Your task to perform on an android device: find photos in the google photos app Image 0: 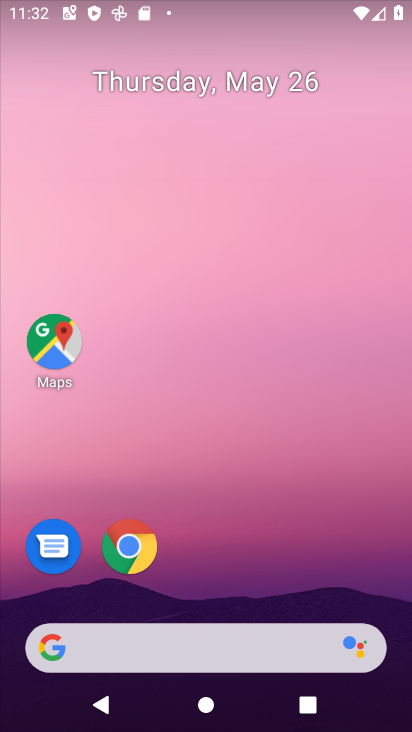
Step 0: drag from (226, 550) to (280, 141)
Your task to perform on an android device: find photos in the google photos app Image 1: 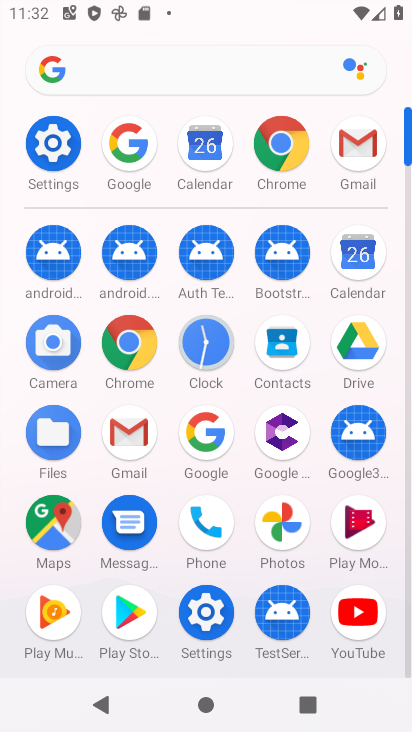
Step 1: click (286, 522)
Your task to perform on an android device: find photos in the google photos app Image 2: 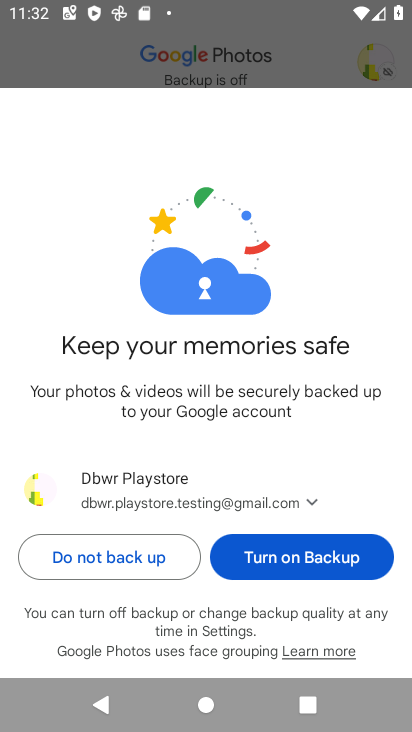
Step 2: press back button
Your task to perform on an android device: find photos in the google photos app Image 3: 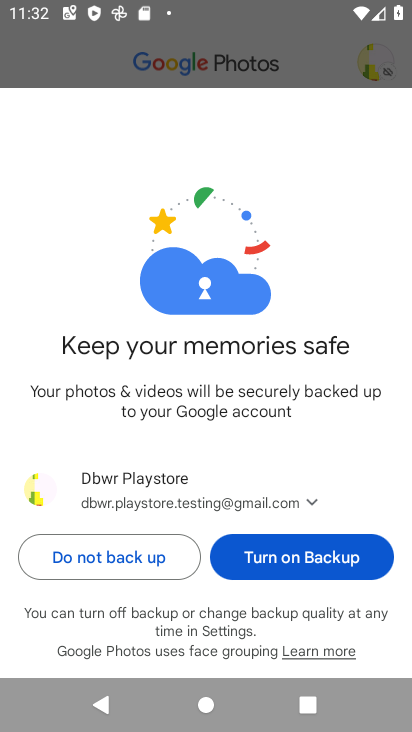
Step 3: press back button
Your task to perform on an android device: find photos in the google photos app Image 4: 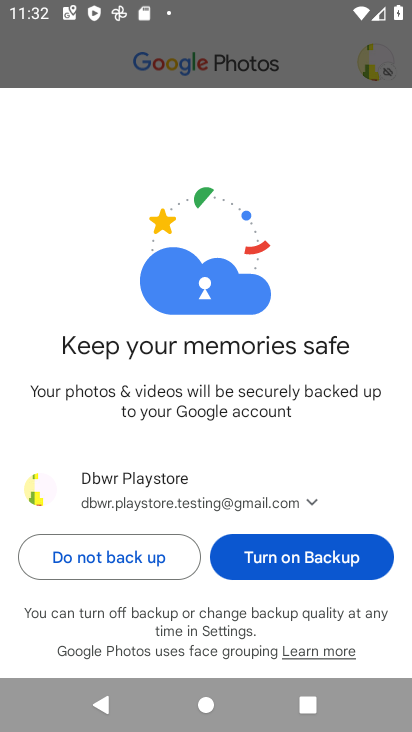
Step 4: click (278, 553)
Your task to perform on an android device: find photos in the google photos app Image 5: 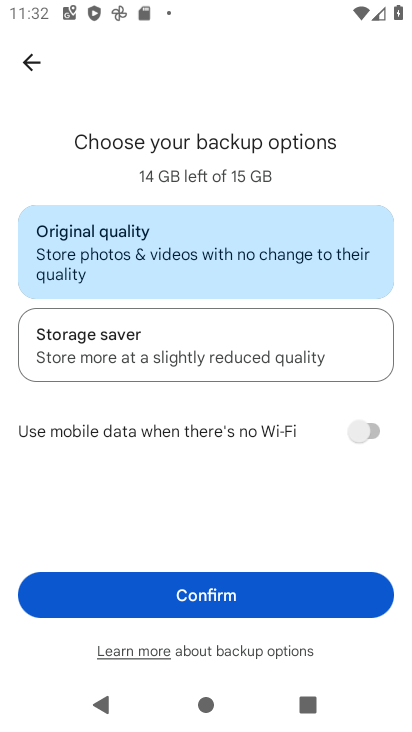
Step 5: task complete